Your task to perform on an android device: check out phone information Image 0: 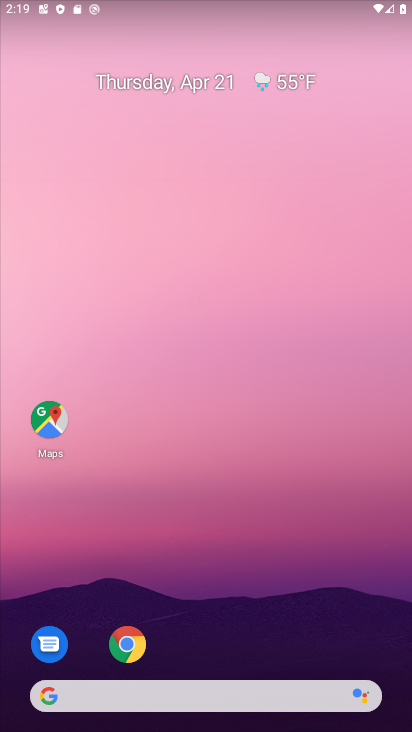
Step 0: drag from (178, 675) to (326, 55)
Your task to perform on an android device: check out phone information Image 1: 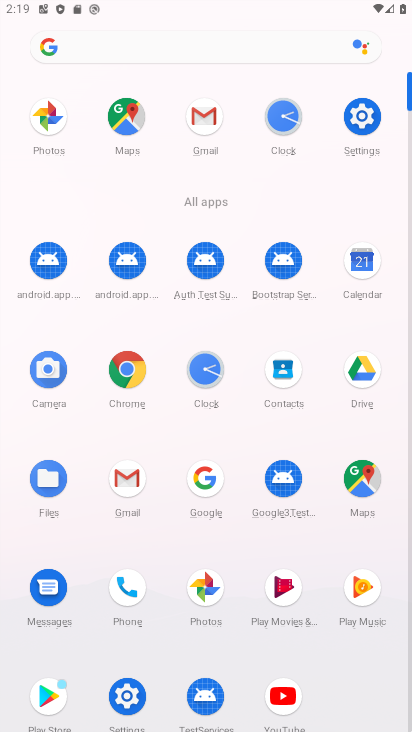
Step 1: click (128, 699)
Your task to perform on an android device: check out phone information Image 2: 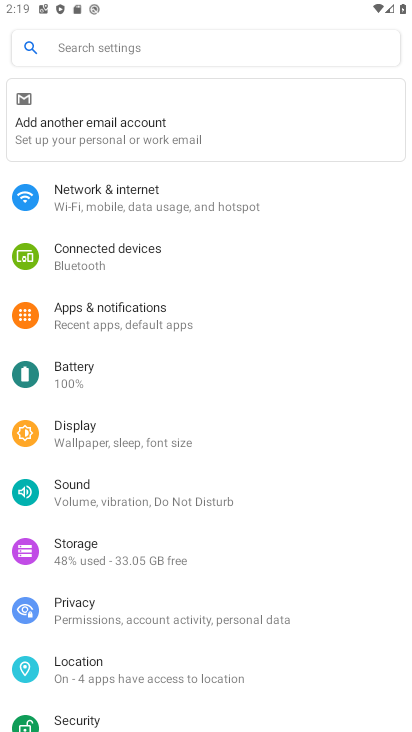
Step 2: drag from (144, 632) to (315, 58)
Your task to perform on an android device: check out phone information Image 3: 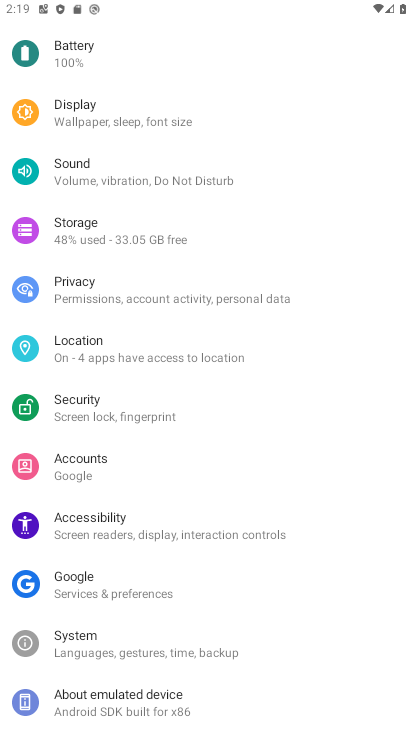
Step 3: drag from (219, 696) to (300, 357)
Your task to perform on an android device: check out phone information Image 4: 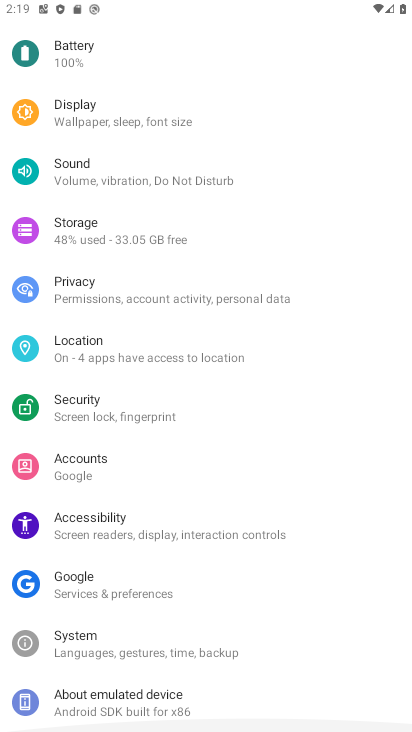
Step 4: click (180, 715)
Your task to perform on an android device: check out phone information Image 5: 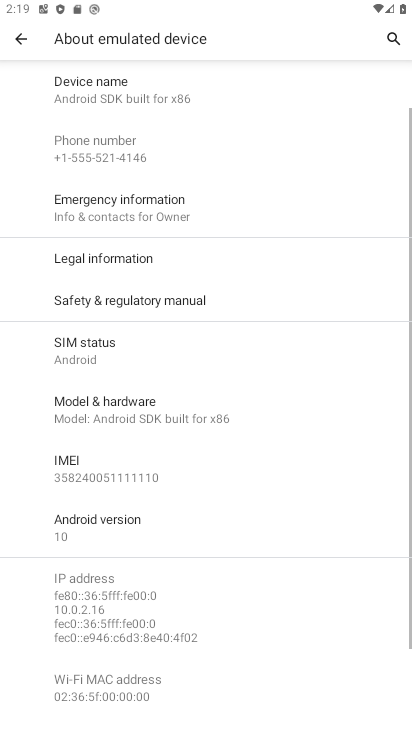
Step 5: task complete